Your task to perform on an android device: Search for the best 100% cotton t-shirts Image 0: 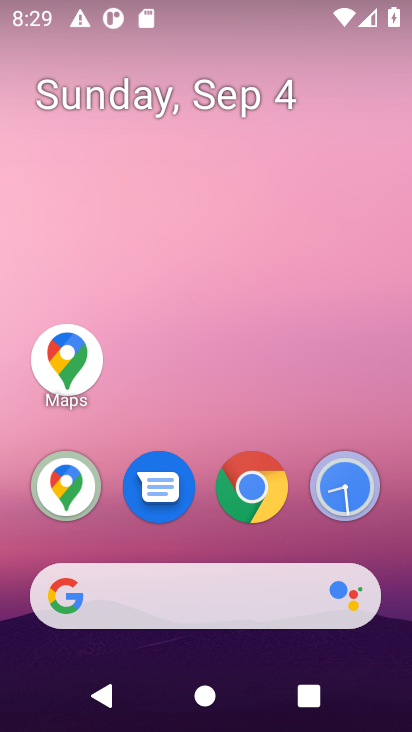
Step 0: click (357, 459)
Your task to perform on an android device: Search for the best 100% cotton t-shirts Image 1: 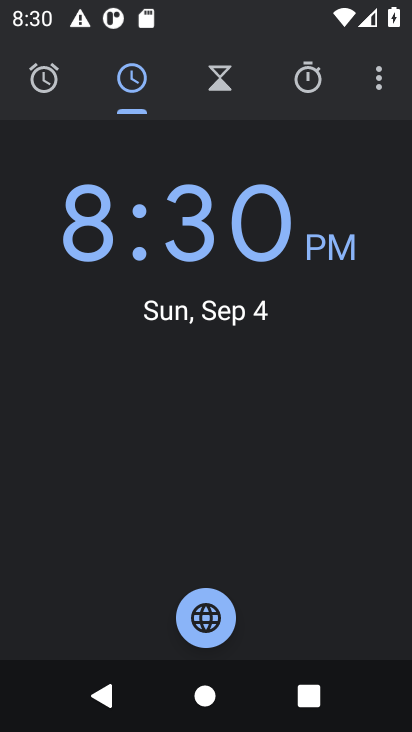
Step 1: task complete